Your task to perform on an android device: Show me productivity apps on the Play Store Image 0: 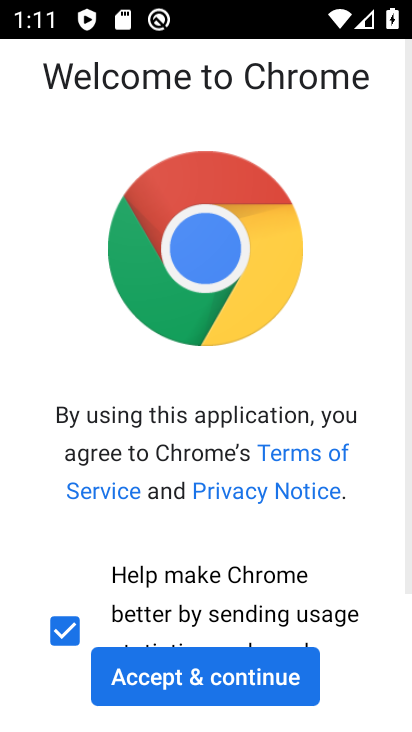
Step 0: press home button
Your task to perform on an android device: Show me productivity apps on the Play Store Image 1: 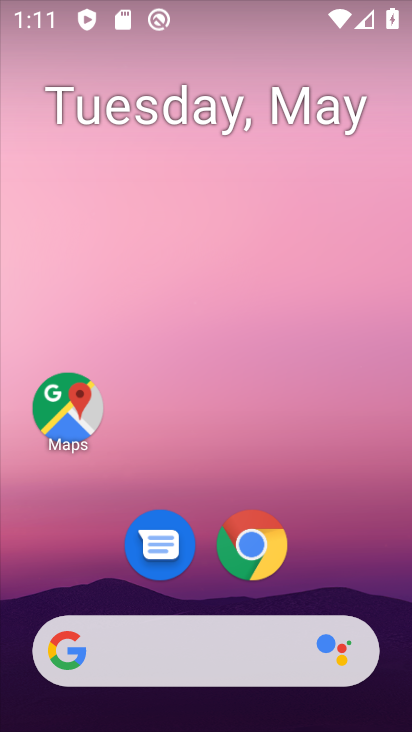
Step 1: drag from (395, 616) to (358, 167)
Your task to perform on an android device: Show me productivity apps on the Play Store Image 2: 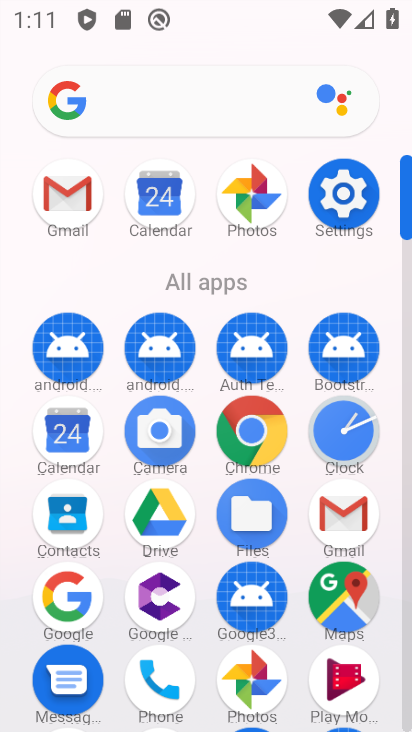
Step 2: click (403, 690)
Your task to perform on an android device: Show me productivity apps on the Play Store Image 3: 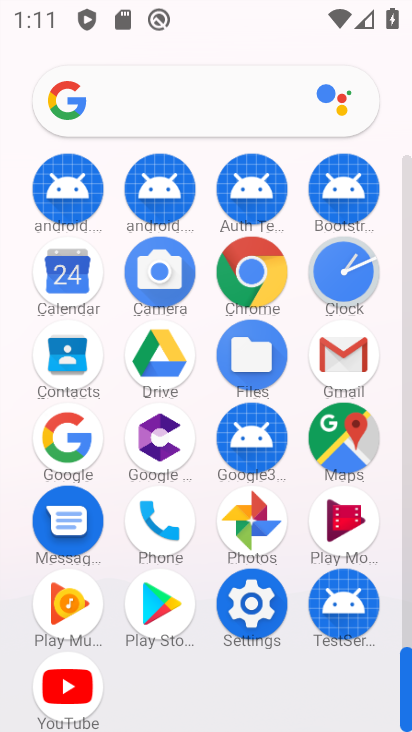
Step 3: click (167, 601)
Your task to perform on an android device: Show me productivity apps on the Play Store Image 4: 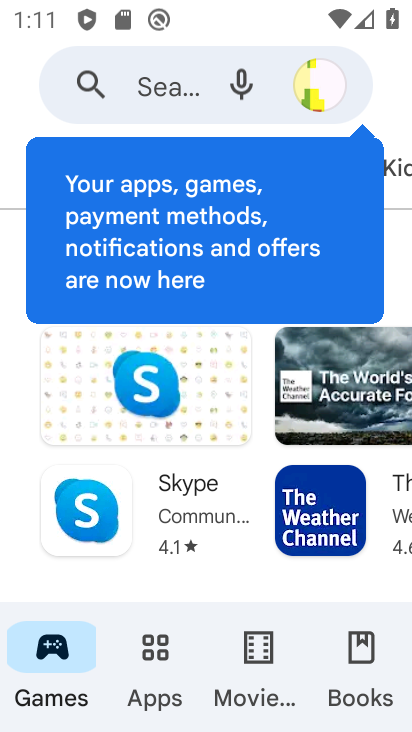
Step 4: click (163, 644)
Your task to perform on an android device: Show me productivity apps on the Play Store Image 5: 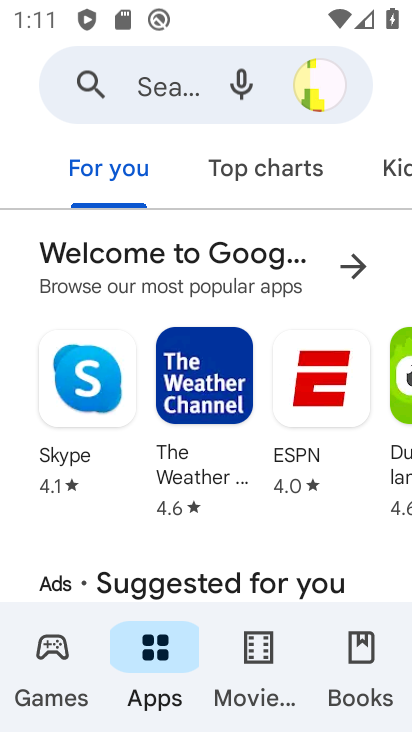
Step 5: drag from (388, 169) to (75, 186)
Your task to perform on an android device: Show me productivity apps on the Play Store Image 6: 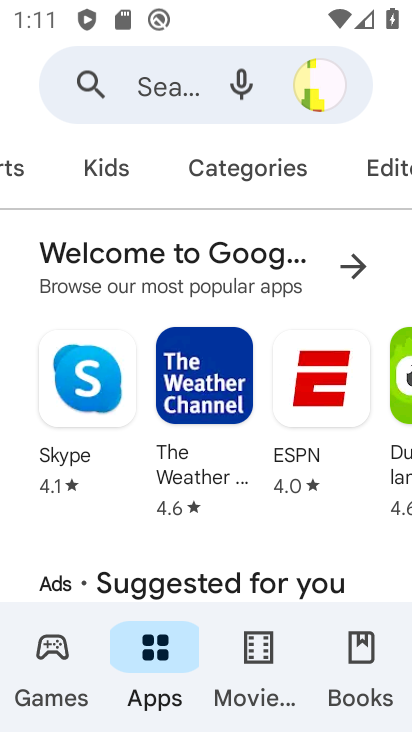
Step 6: click (223, 164)
Your task to perform on an android device: Show me productivity apps on the Play Store Image 7: 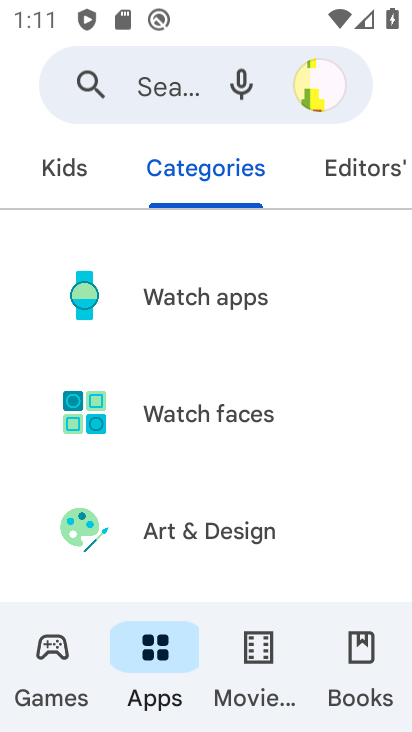
Step 7: drag from (244, 502) to (226, 89)
Your task to perform on an android device: Show me productivity apps on the Play Store Image 8: 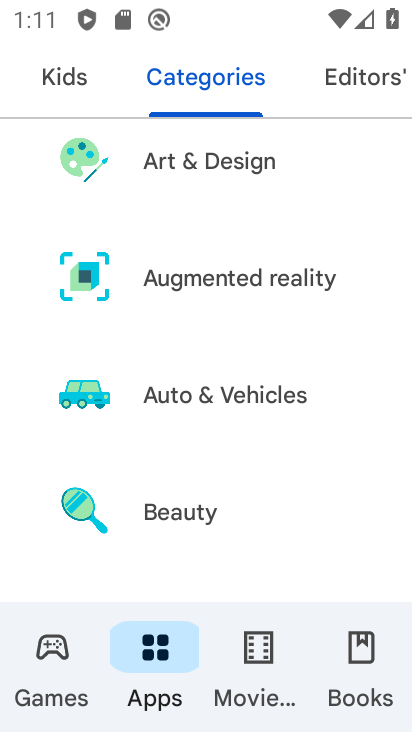
Step 8: drag from (287, 537) to (311, 71)
Your task to perform on an android device: Show me productivity apps on the Play Store Image 9: 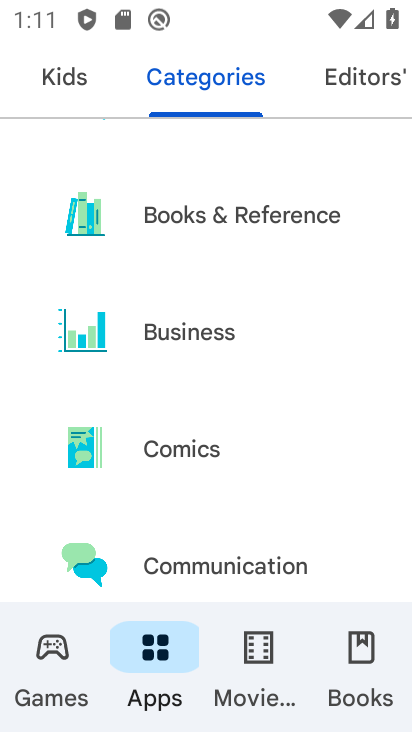
Step 9: drag from (309, 548) to (325, 94)
Your task to perform on an android device: Show me productivity apps on the Play Store Image 10: 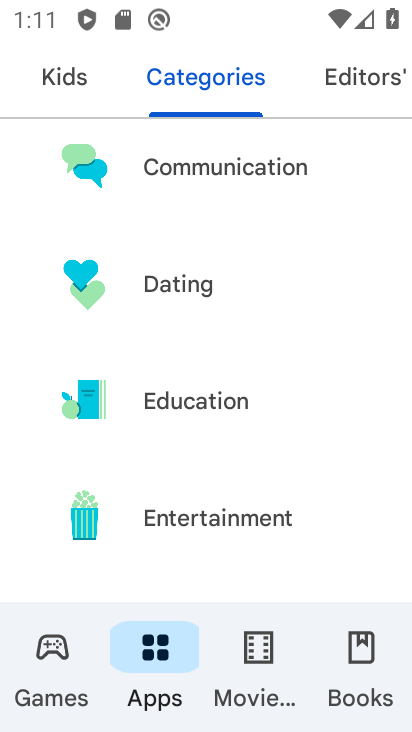
Step 10: drag from (327, 558) to (293, 71)
Your task to perform on an android device: Show me productivity apps on the Play Store Image 11: 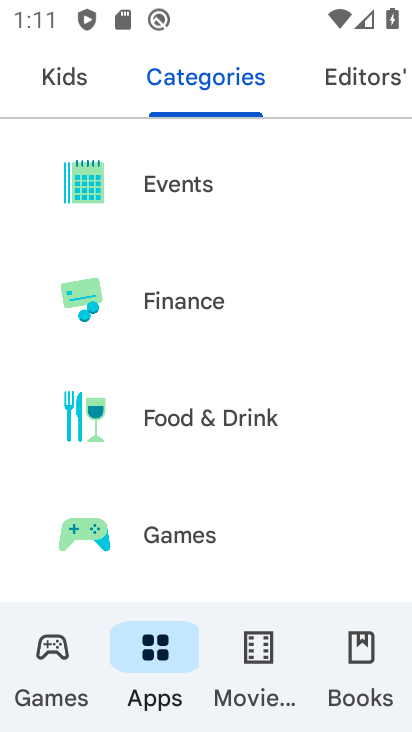
Step 11: drag from (283, 577) to (280, 93)
Your task to perform on an android device: Show me productivity apps on the Play Store Image 12: 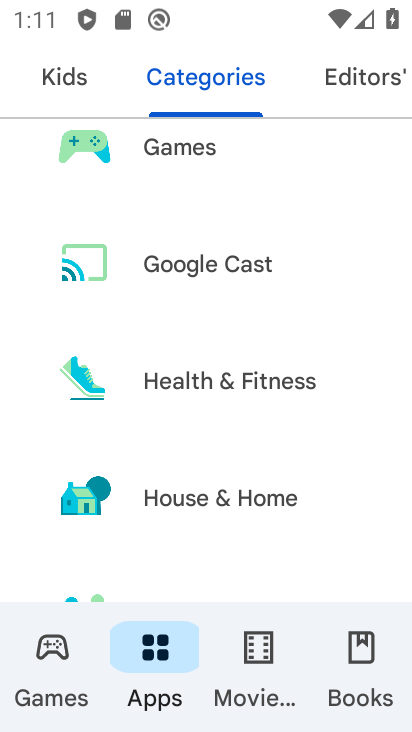
Step 12: drag from (293, 547) to (268, 24)
Your task to perform on an android device: Show me productivity apps on the Play Store Image 13: 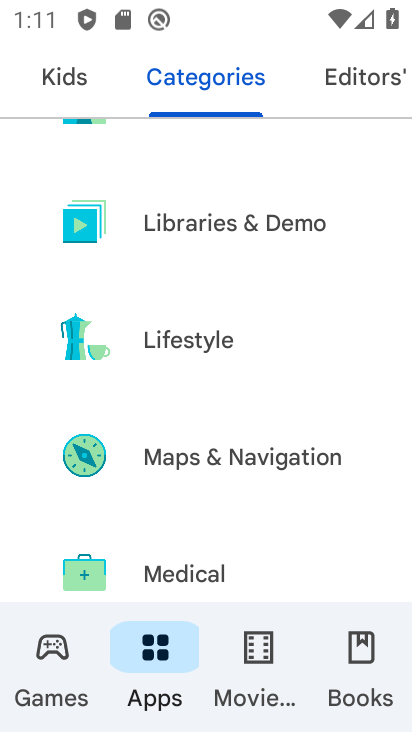
Step 13: drag from (297, 572) to (273, 70)
Your task to perform on an android device: Show me productivity apps on the Play Store Image 14: 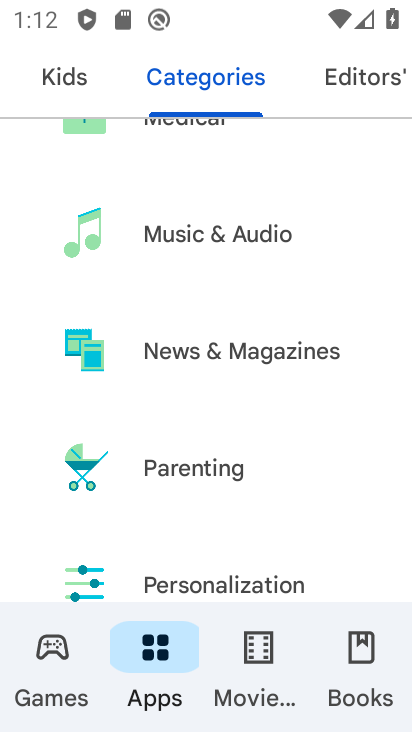
Step 14: drag from (284, 533) to (308, 92)
Your task to perform on an android device: Show me productivity apps on the Play Store Image 15: 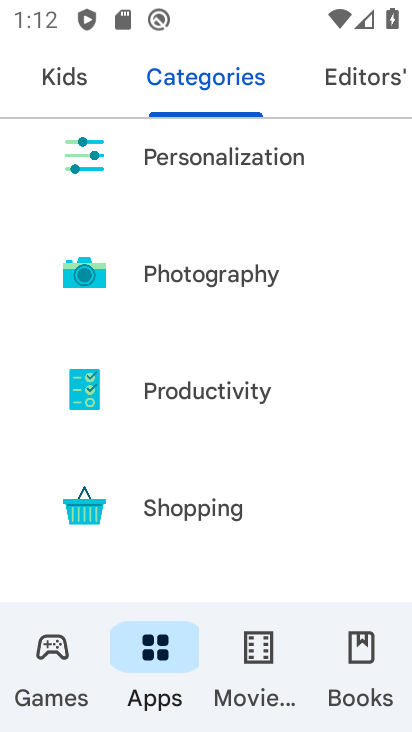
Step 15: click (188, 379)
Your task to perform on an android device: Show me productivity apps on the Play Store Image 16: 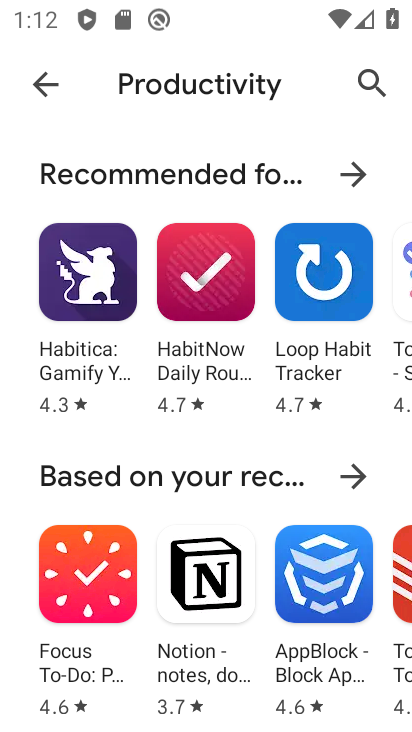
Step 16: drag from (265, 515) to (273, 152)
Your task to perform on an android device: Show me productivity apps on the Play Store Image 17: 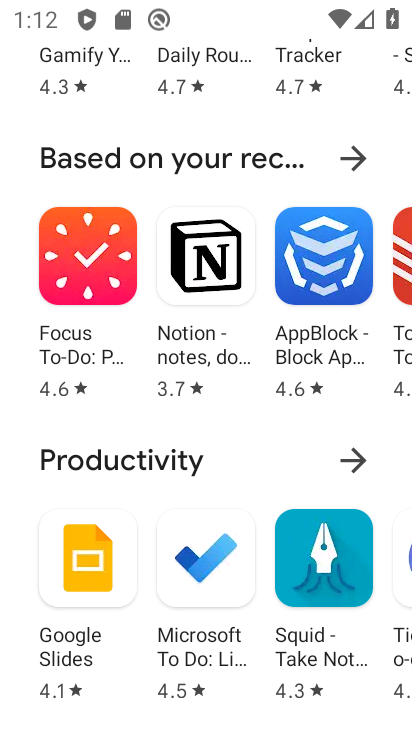
Step 17: click (357, 453)
Your task to perform on an android device: Show me productivity apps on the Play Store Image 18: 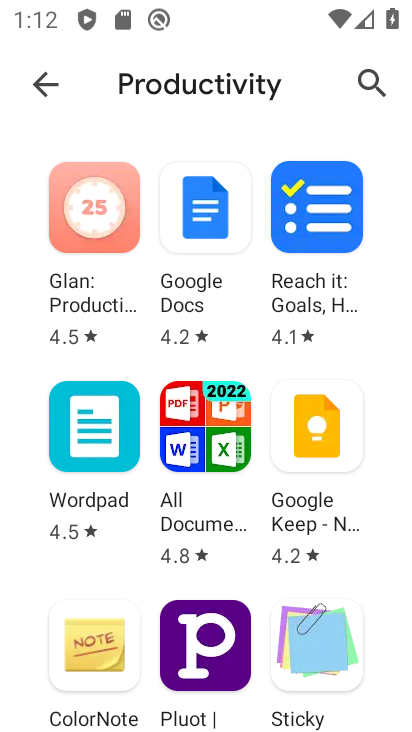
Step 18: task complete